Your task to perform on an android device: turn off notifications in google photos Image 0: 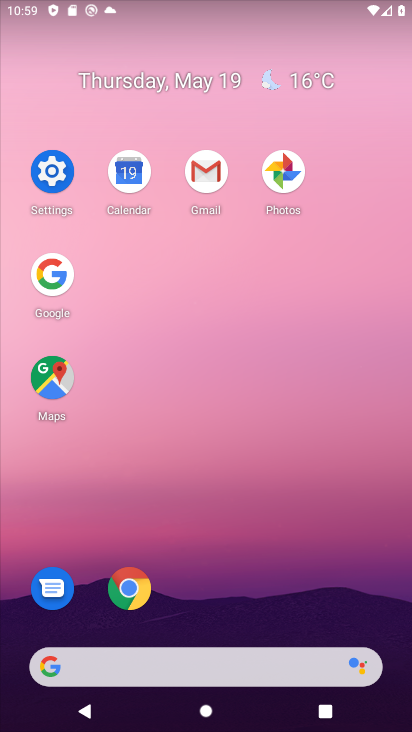
Step 0: click (285, 180)
Your task to perform on an android device: turn off notifications in google photos Image 1: 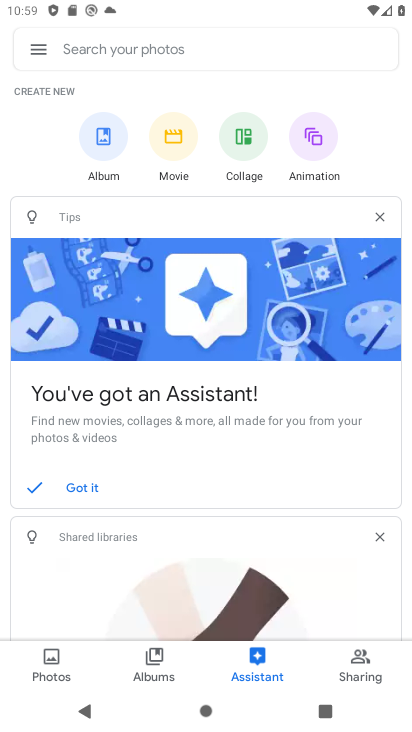
Step 1: click (35, 45)
Your task to perform on an android device: turn off notifications in google photos Image 2: 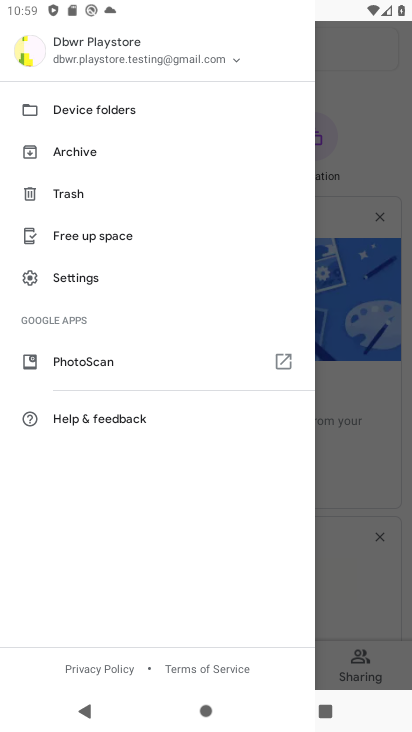
Step 2: click (105, 280)
Your task to perform on an android device: turn off notifications in google photos Image 3: 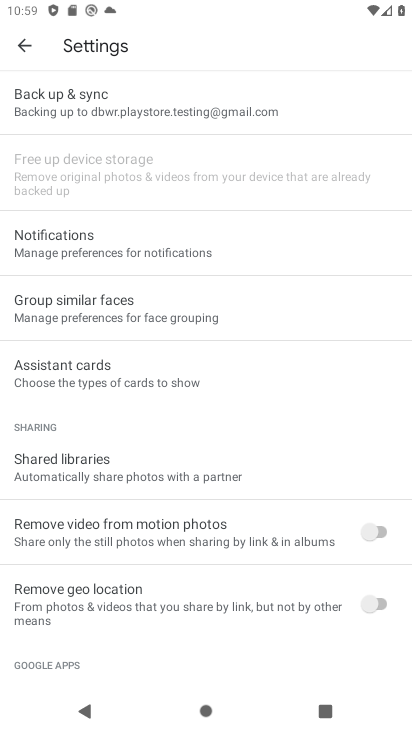
Step 3: click (107, 262)
Your task to perform on an android device: turn off notifications in google photos Image 4: 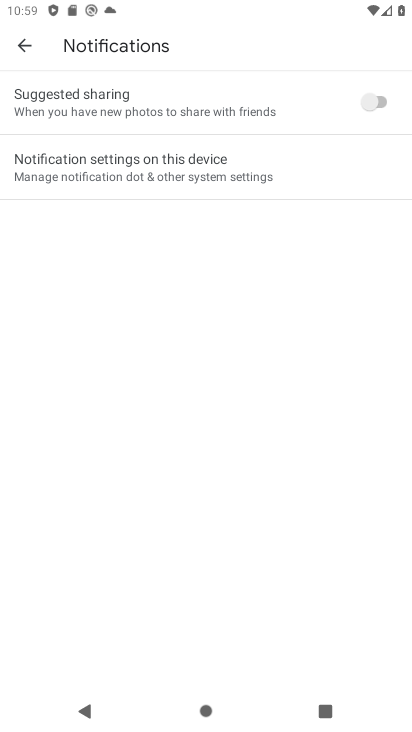
Step 4: click (145, 145)
Your task to perform on an android device: turn off notifications in google photos Image 5: 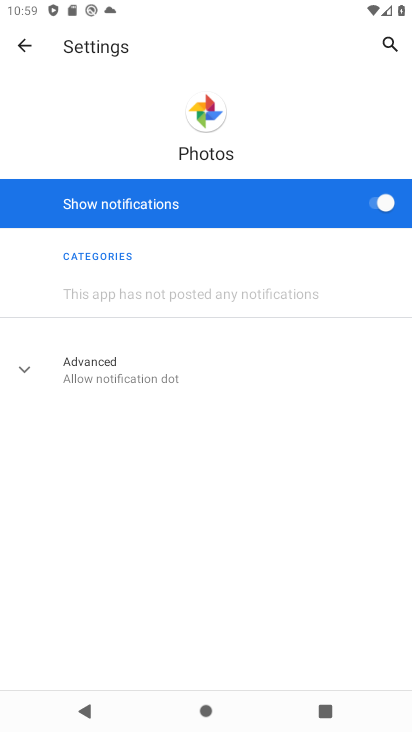
Step 5: click (387, 202)
Your task to perform on an android device: turn off notifications in google photos Image 6: 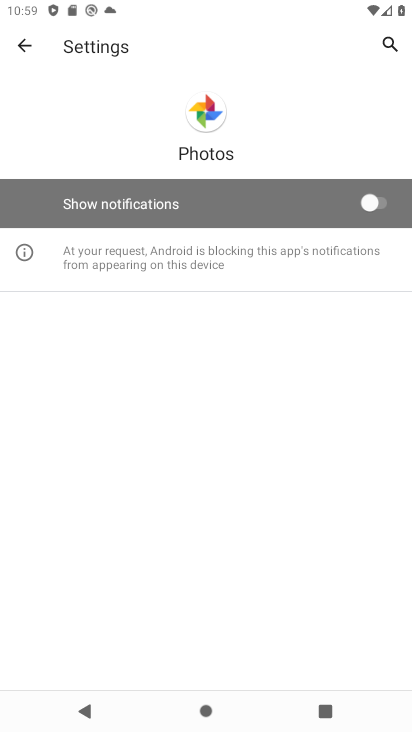
Step 6: task complete